Your task to perform on an android device: Open Youtube and go to the subscriptions tab Image 0: 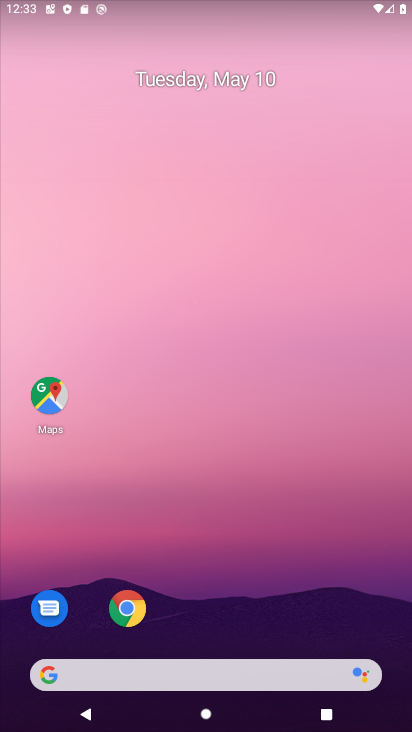
Step 0: drag from (226, 617) to (173, 29)
Your task to perform on an android device: Open Youtube and go to the subscriptions tab Image 1: 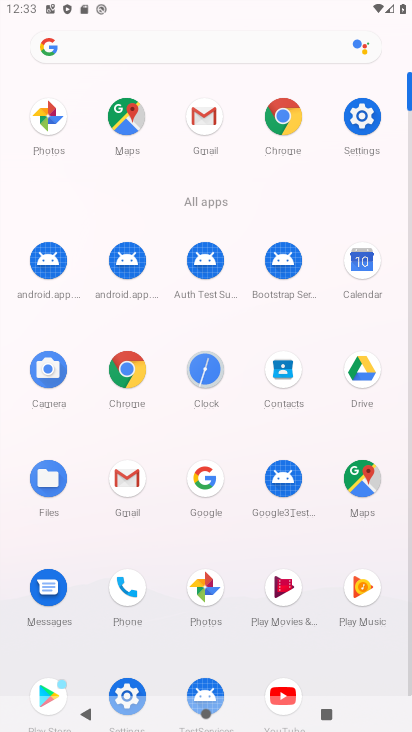
Step 1: drag from (239, 651) to (225, 320)
Your task to perform on an android device: Open Youtube and go to the subscriptions tab Image 2: 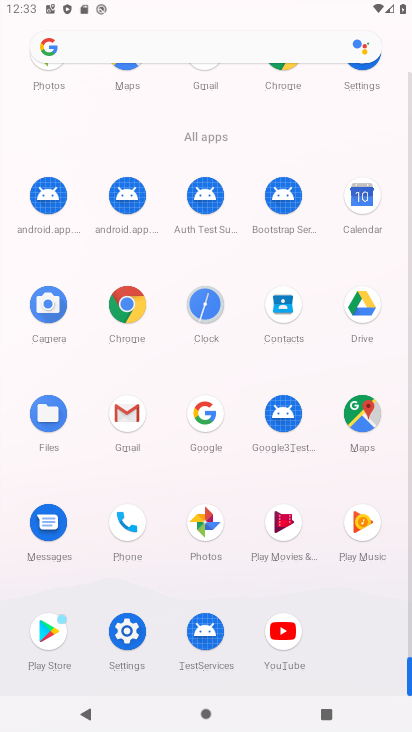
Step 2: click (283, 613)
Your task to perform on an android device: Open Youtube and go to the subscriptions tab Image 3: 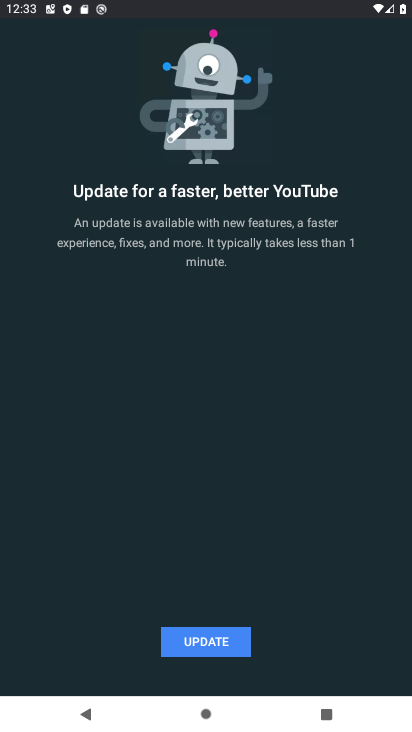
Step 3: click (212, 638)
Your task to perform on an android device: Open Youtube and go to the subscriptions tab Image 4: 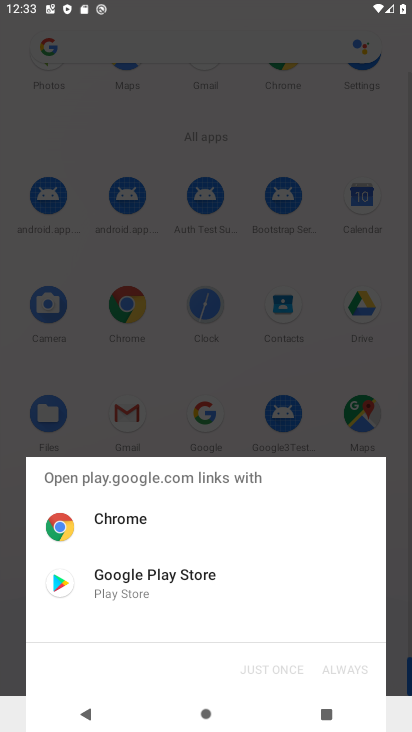
Step 4: click (141, 580)
Your task to perform on an android device: Open Youtube and go to the subscriptions tab Image 5: 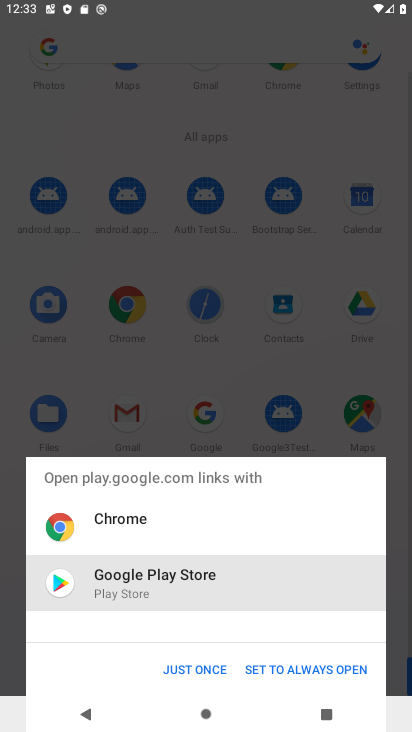
Step 5: click (177, 655)
Your task to perform on an android device: Open Youtube and go to the subscriptions tab Image 6: 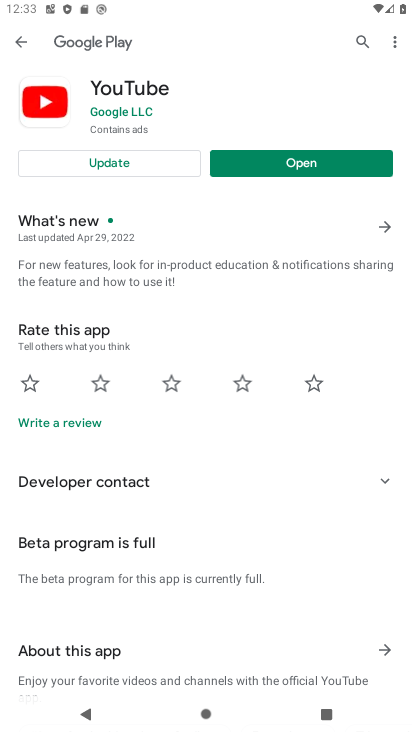
Step 6: click (129, 171)
Your task to perform on an android device: Open Youtube and go to the subscriptions tab Image 7: 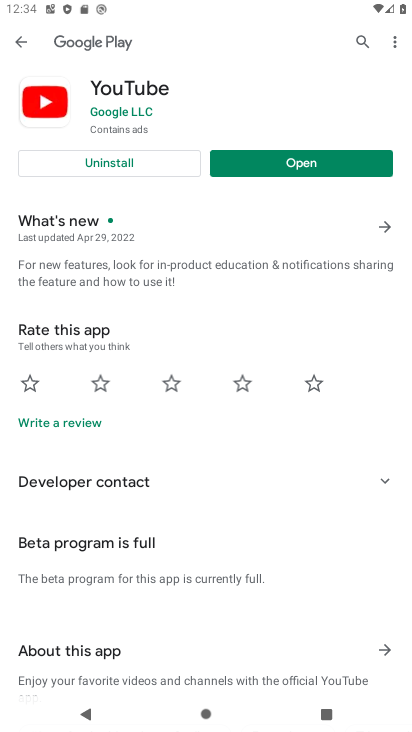
Step 7: click (228, 169)
Your task to perform on an android device: Open Youtube and go to the subscriptions tab Image 8: 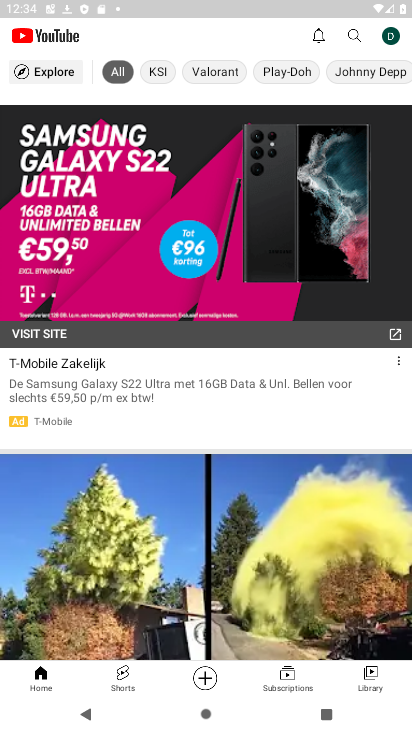
Step 8: click (284, 676)
Your task to perform on an android device: Open Youtube and go to the subscriptions tab Image 9: 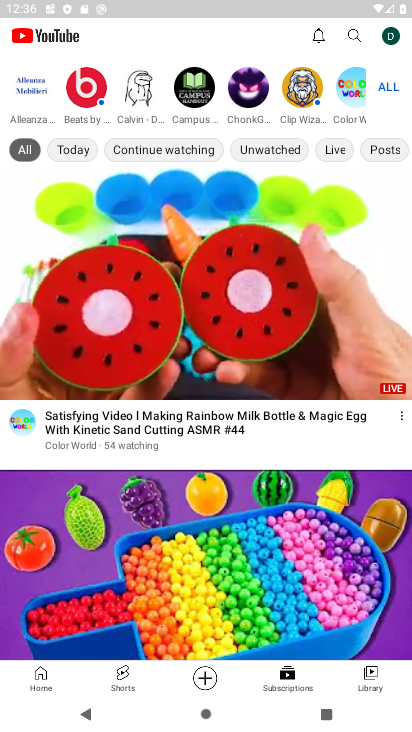
Step 9: task complete